Your task to perform on an android device: open the mobile data screen to see how much data has been used Image 0: 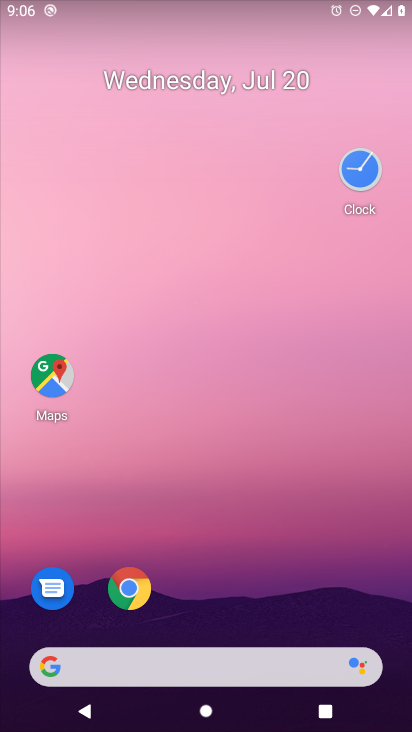
Step 0: drag from (19, 720) to (133, 198)
Your task to perform on an android device: open the mobile data screen to see how much data has been used Image 1: 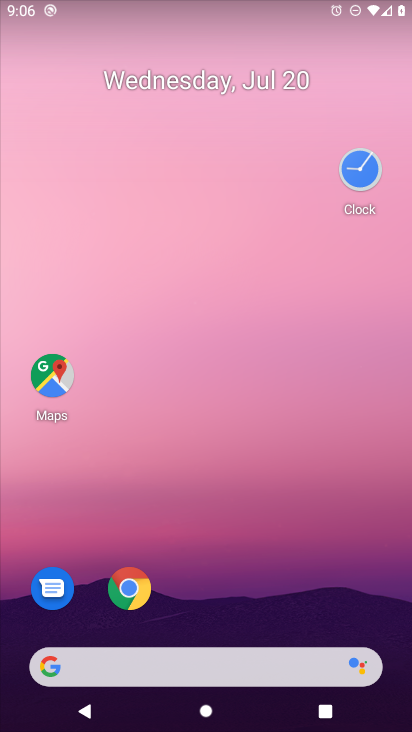
Step 1: drag from (26, 685) to (275, 13)
Your task to perform on an android device: open the mobile data screen to see how much data has been used Image 2: 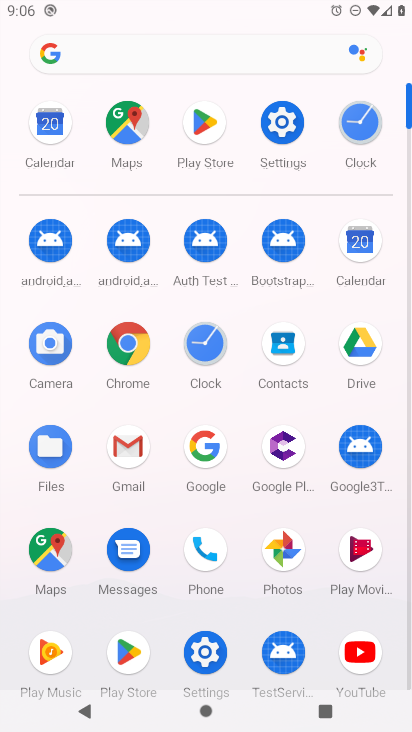
Step 2: click (195, 654)
Your task to perform on an android device: open the mobile data screen to see how much data has been used Image 3: 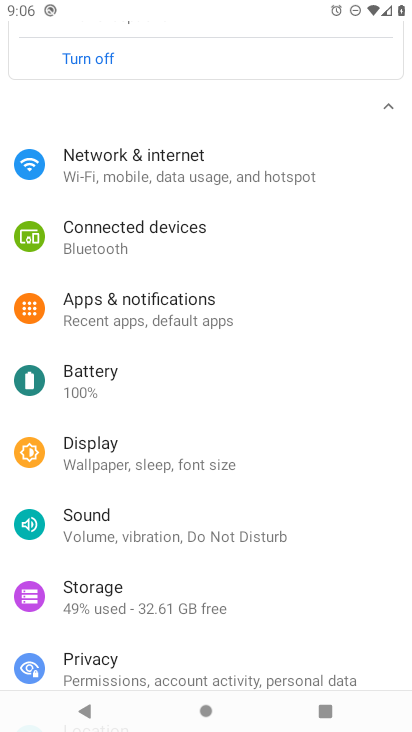
Step 3: click (153, 179)
Your task to perform on an android device: open the mobile data screen to see how much data has been used Image 4: 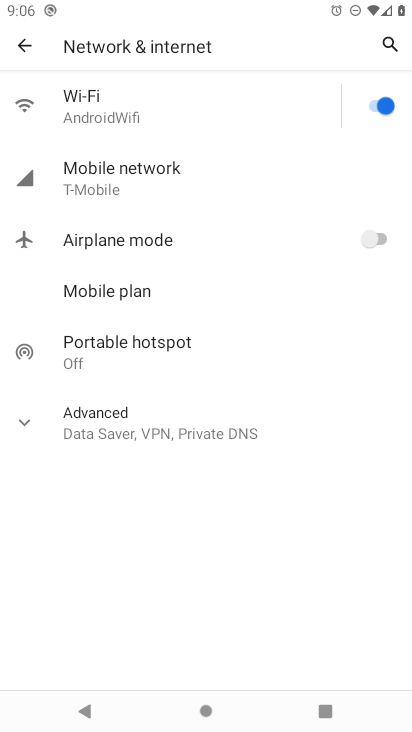
Step 4: click (164, 187)
Your task to perform on an android device: open the mobile data screen to see how much data has been used Image 5: 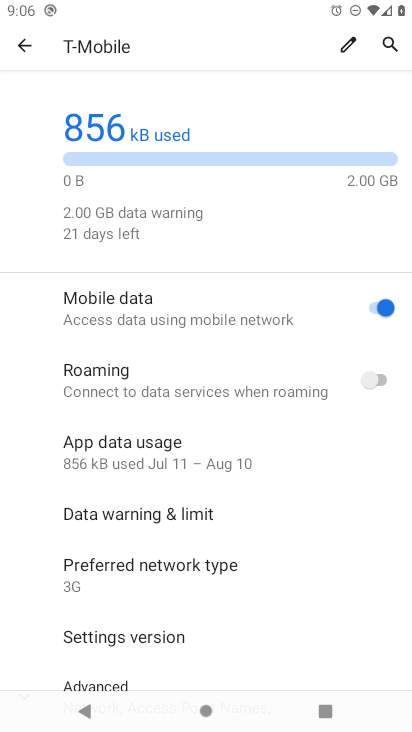
Step 5: task complete